Your task to perform on an android device: open sync settings in chrome Image 0: 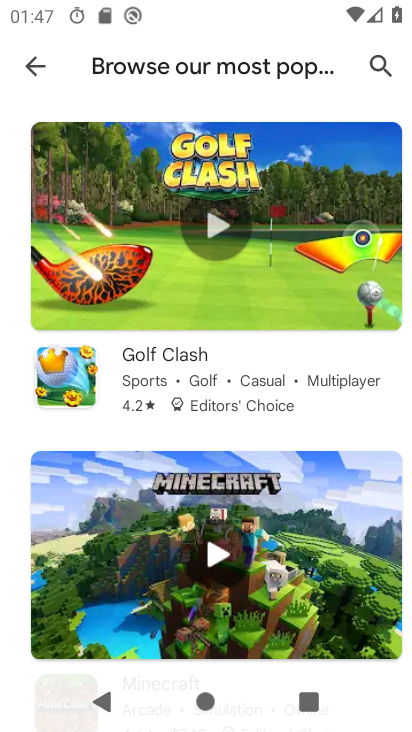
Step 0: press home button
Your task to perform on an android device: open sync settings in chrome Image 1: 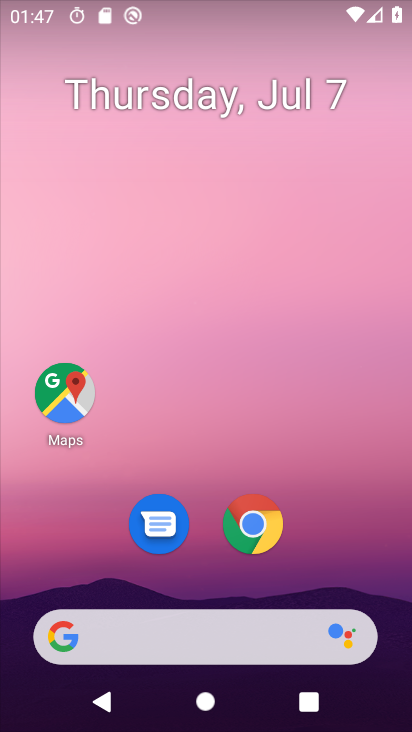
Step 1: click (278, 550)
Your task to perform on an android device: open sync settings in chrome Image 2: 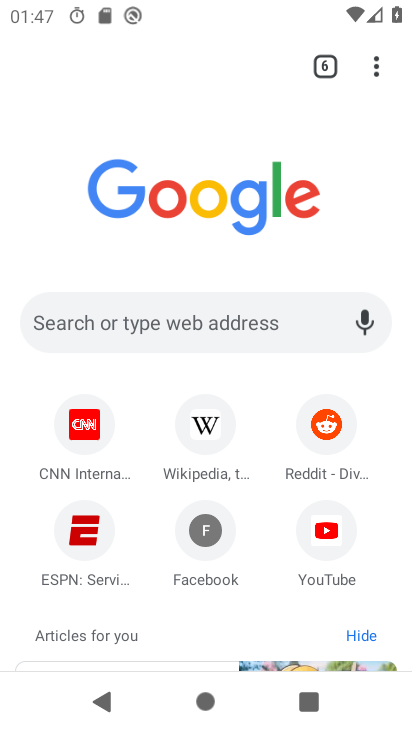
Step 2: click (371, 65)
Your task to perform on an android device: open sync settings in chrome Image 3: 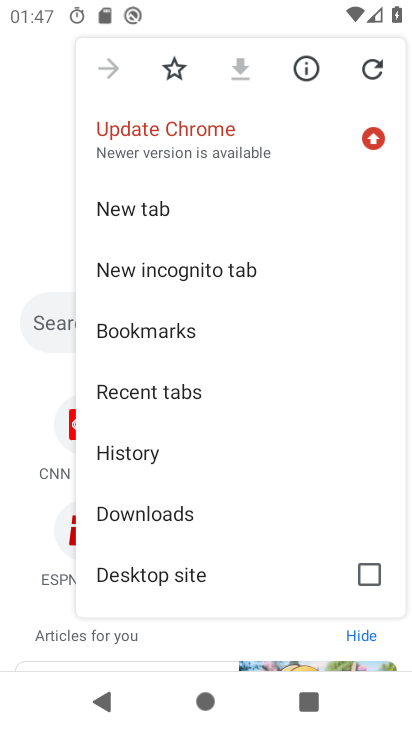
Step 3: drag from (264, 496) to (284, 164)
Your task to perform on an android device: open sync settings in chrome Image 4: 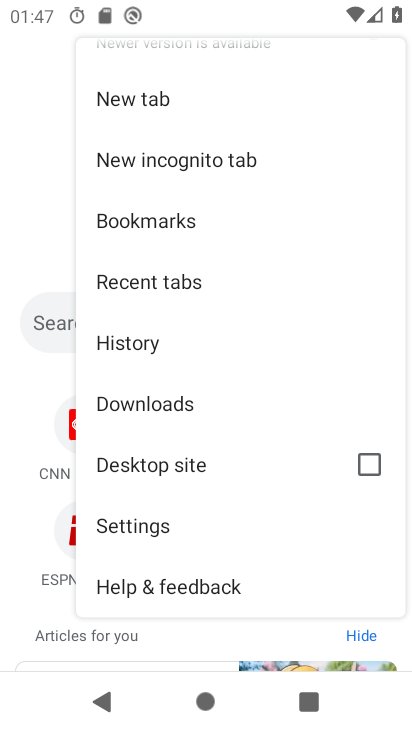
Step 4: click (151, 523)
Your task to perform on an android device: open sync settings in chrome Image 5: 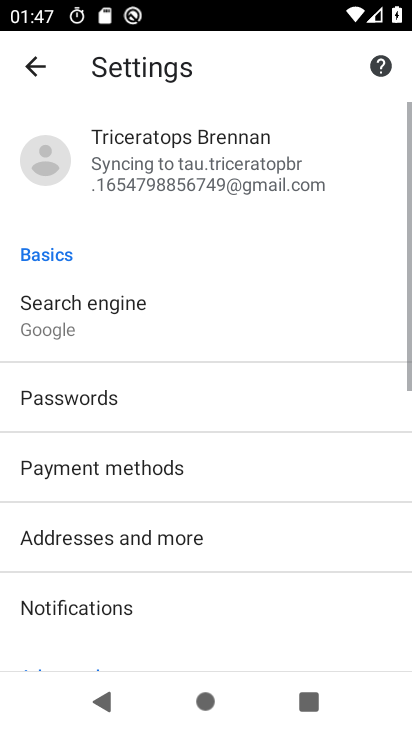
Step 5: click (188, 154)
Your task to perform on an android device: open sync settings in chrome Image 6: 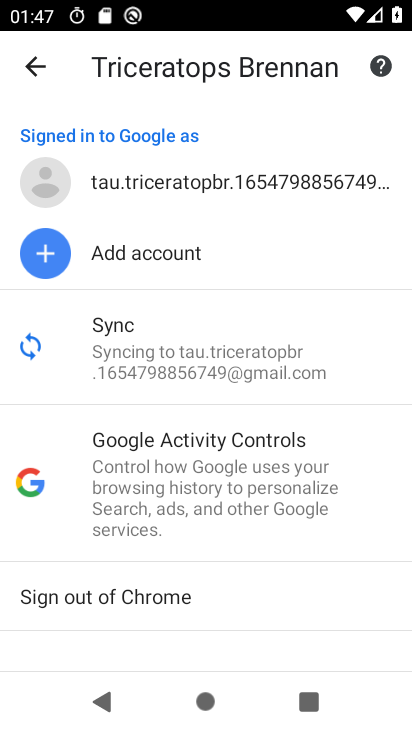
Step 6: click (108, 344)
Your task to perform on an android device: open sync settings in chrome Image 7: 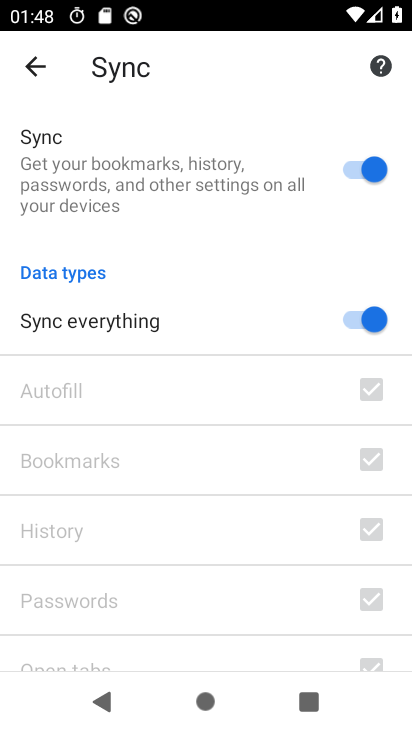
Step 7: task complete